Your task to perform on an android device: Search for "razer deathadder" on newegg.com, select the first entry, add it to the cart, then select checkout. Image 0: 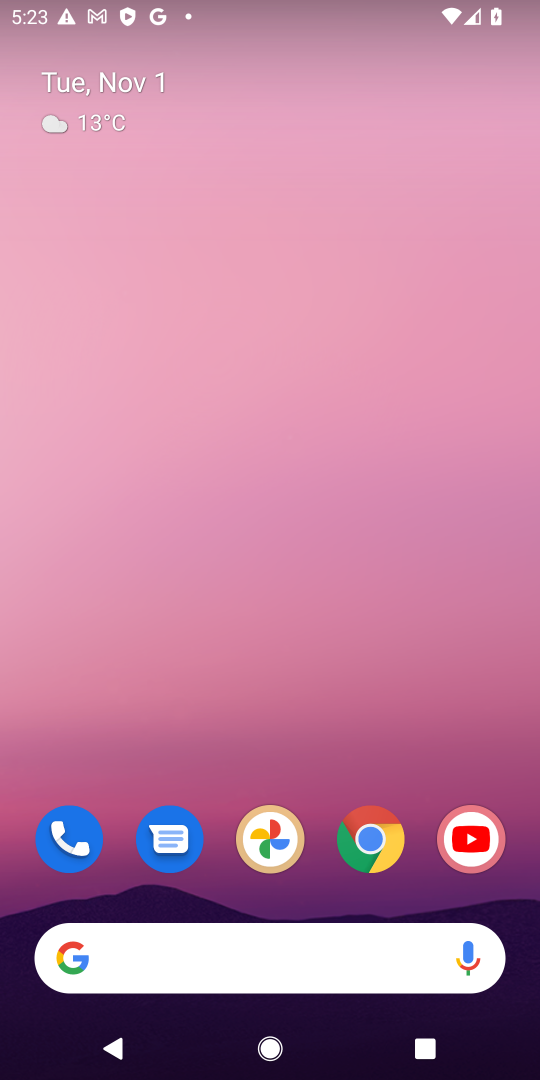
Step 0: drag from (330, 902) to (347, 89)
Your task to perform on an android device: Search for "razer deathadder" on newegg.com, select the first entry, add it to the cart, then select checkout. Image 1: 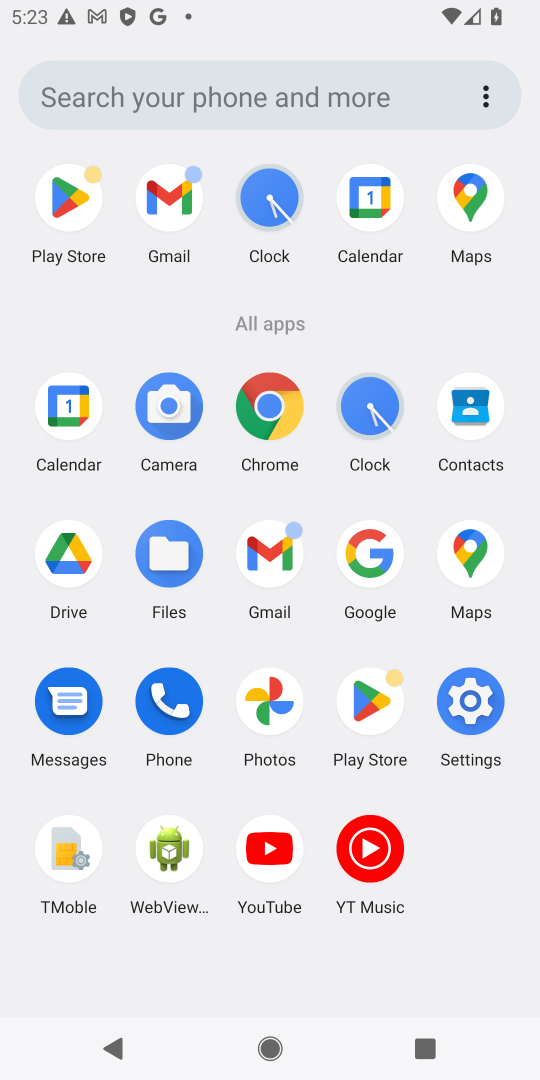
Step 1: click (268, 407)
Your task to perform on an android device: Search for "razer deathadder" on newegg.com, select the first entry, add it to the cart, then select checkout. Image 2: 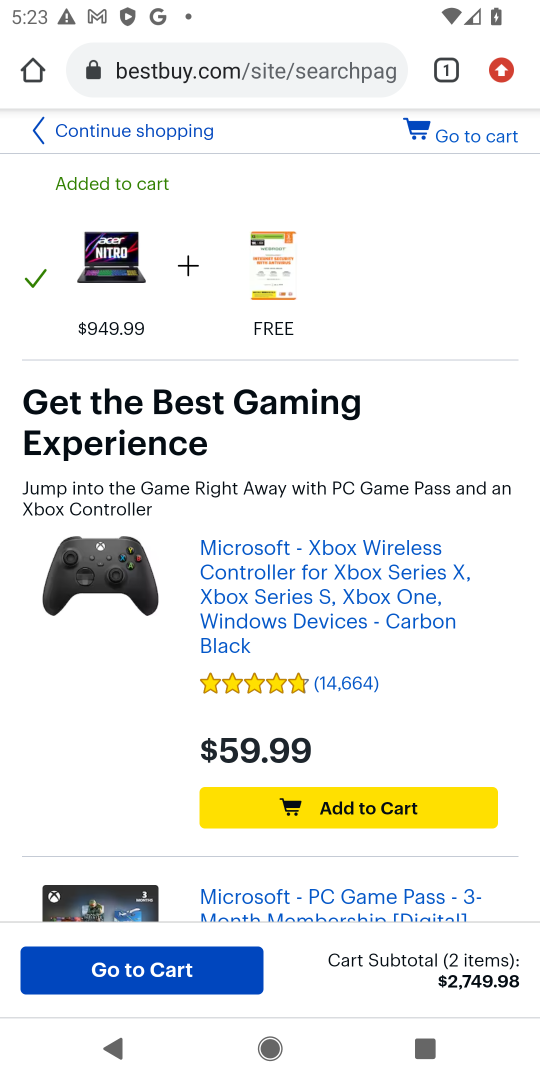
Step 2: click (287, 69)
Your task to perform on an android device: Search for "razer deathadder" on newegg.com, select the first entry, add it to the cart, then select checkout. Image 3: 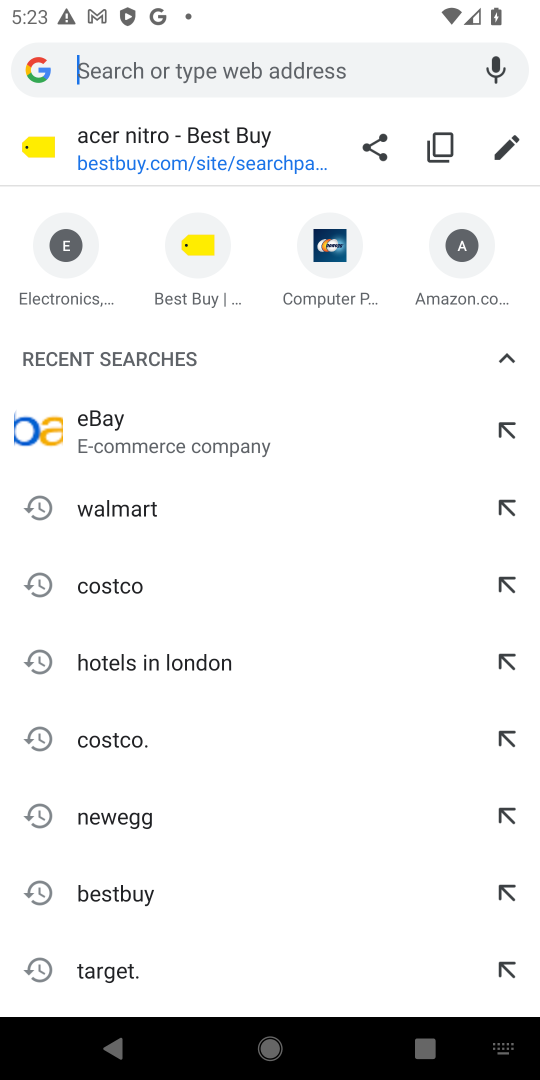
Step 3: type "newegg.com"
Your task to perform on an android device: Search for "razer deathadder" on newegg.com, select the first entry, add it to the cart, then select checkout. Image 4: 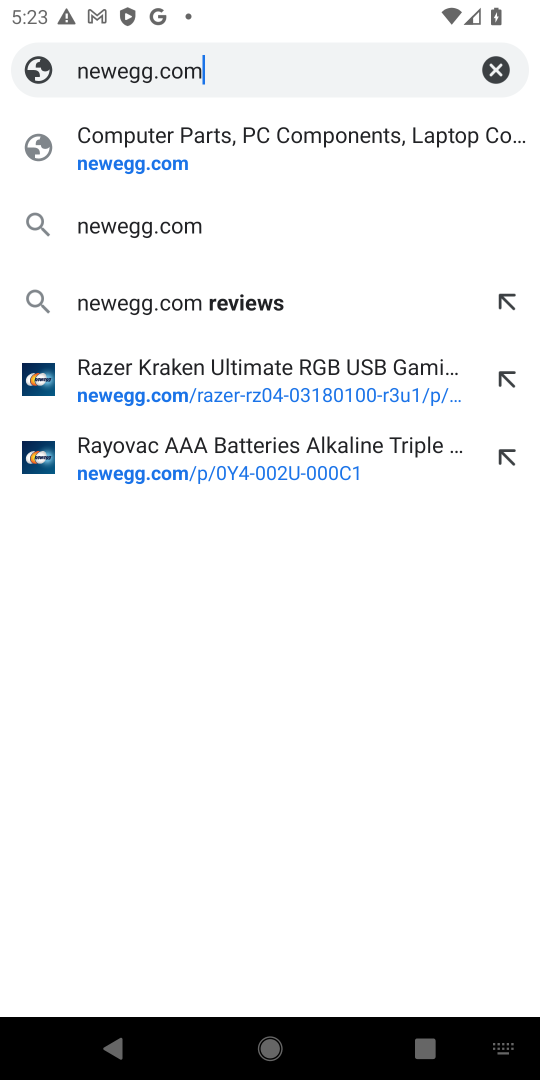
Step 4: press enter
Your task to perform on an android device: Search for "razer deathadder" on newegg.com, select the first entry, add it to the cart, then select checkout. Image 5: 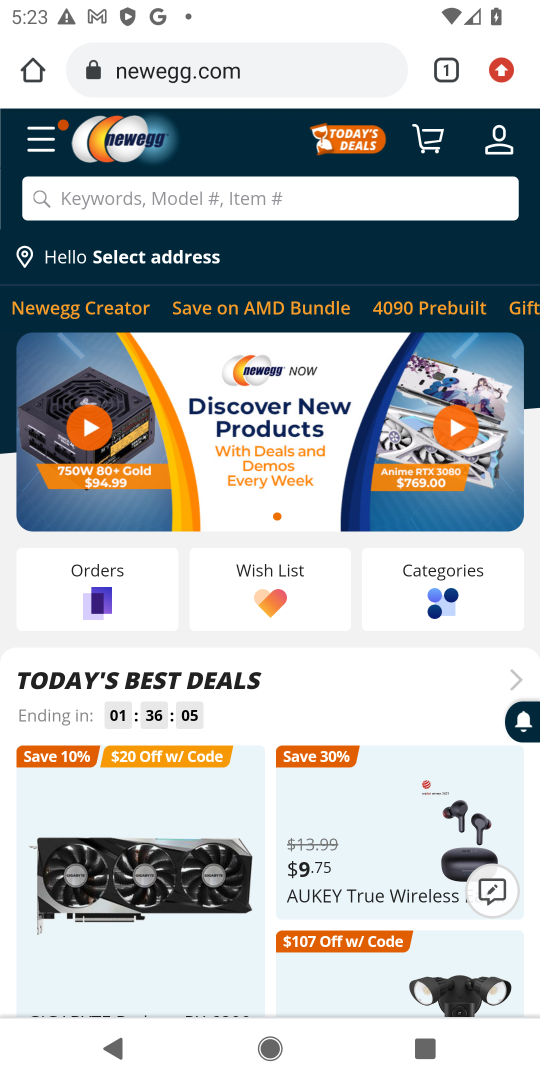
Step 5: click (339, 186)
Your task to perform on an android device: Search for "razer deathadder" on newegg.com, select the first entry, add it to the cart, then select checkout. Image 6: 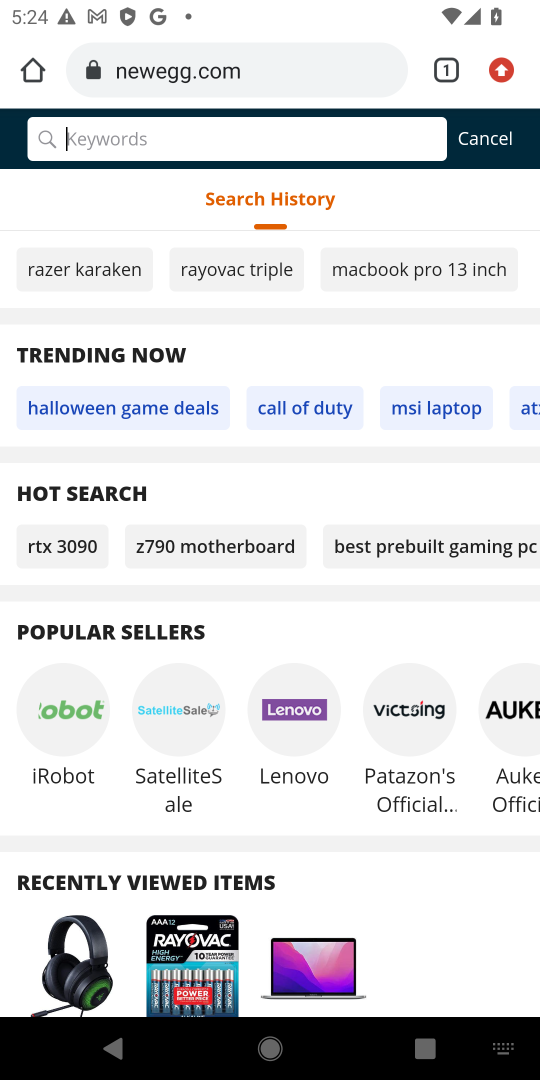
Step 6: type "razer deathadder"
Your task to perform on an android device: Search for "razer deathadder" on newegg.com, select the first entry, add it to the cart, then select checkout. Image 7: 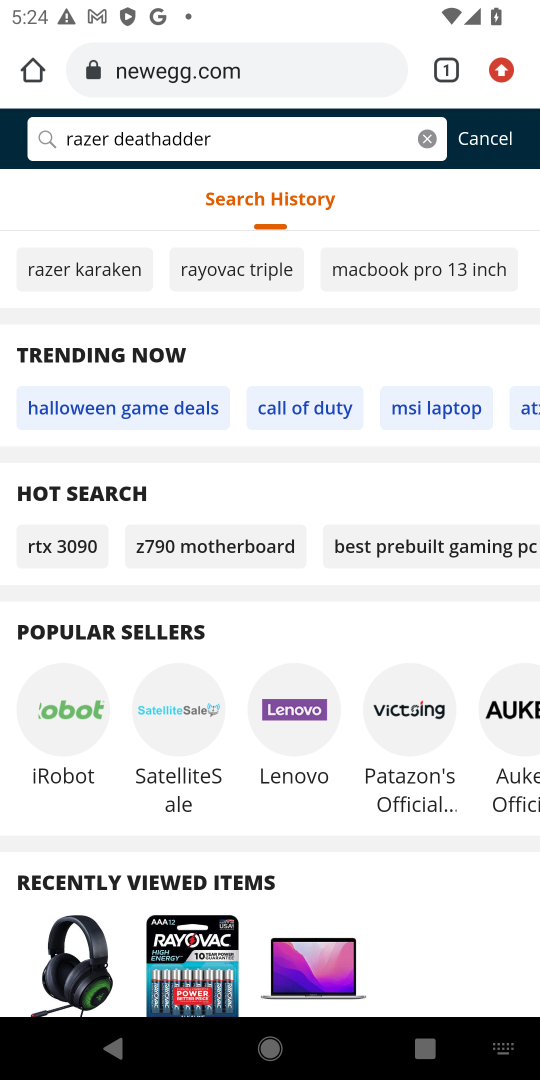
Step 7: press enter
Your task to perform on an android device: Search for "razer deathadder" on newegg.com, select the first entry, add it to the cart, then select checkout. Image 8: 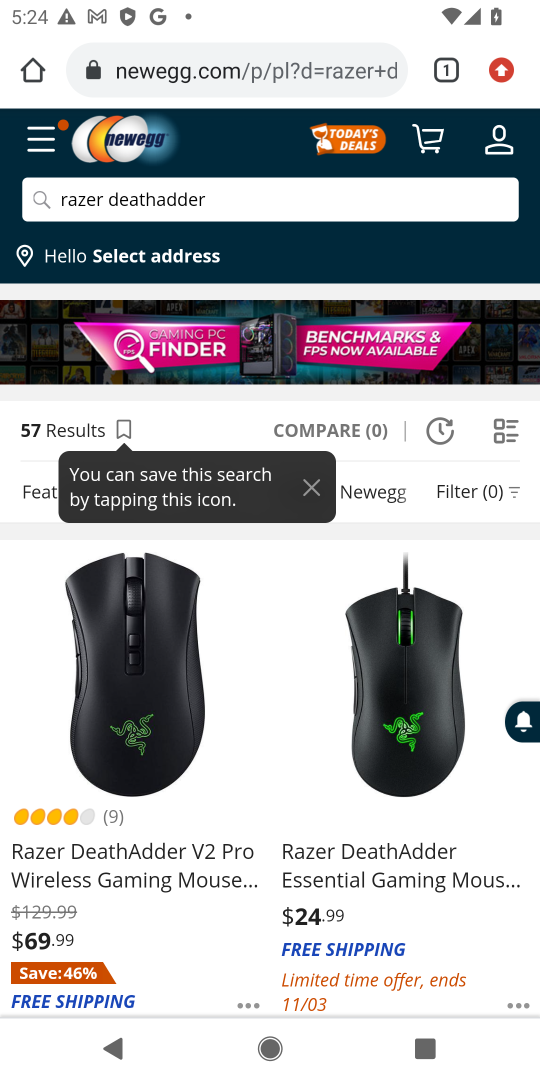
Step 8: click (140, 683)
Your task to perform on an android device: Search for "razer deathadder" on newegg.com, select the first entry, add it to the cart, then select checkout. Image 9: 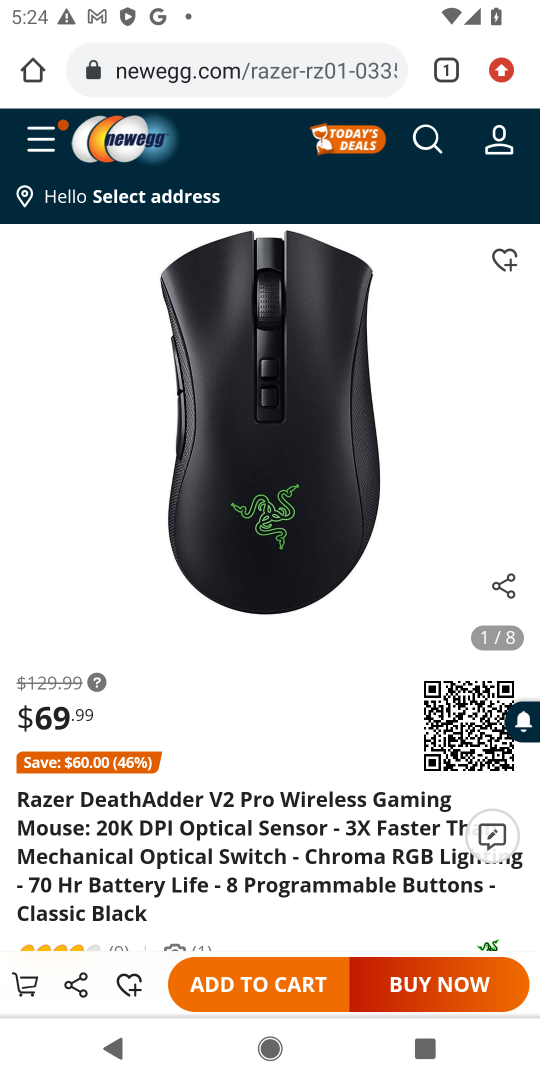
Step 9: click (266, 986)
Your task to perform on an android device: Search for "razer deathadder" on newegg.com, select the first entry, add it to the cart, then select checkout. Image 10: 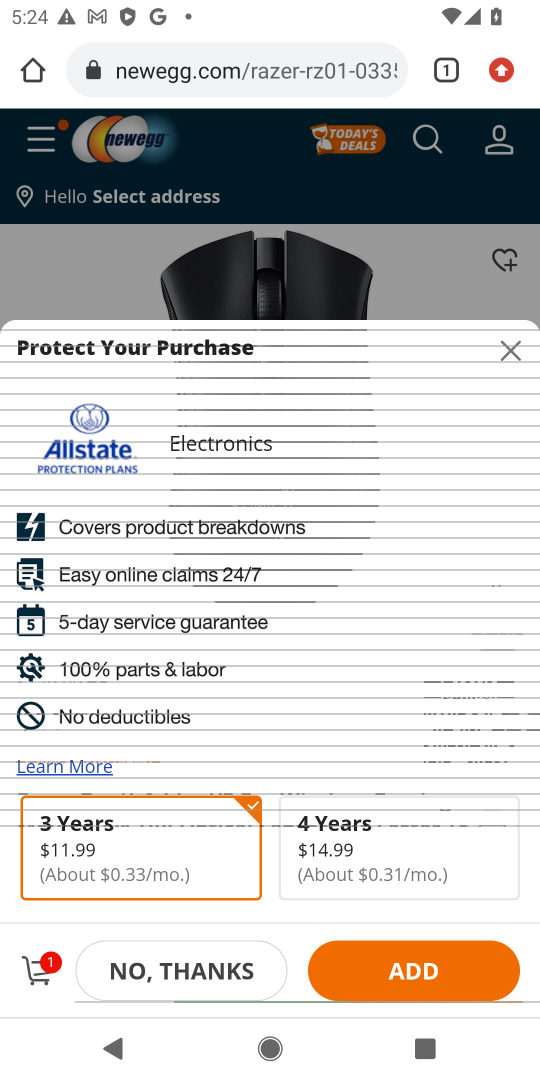
Step 10: click (30, 996)
Your task to perform on an android device: Search for "razer deathadder" on newegg.com, select the first entry, add it to the cart, then select checkout. Image 11: 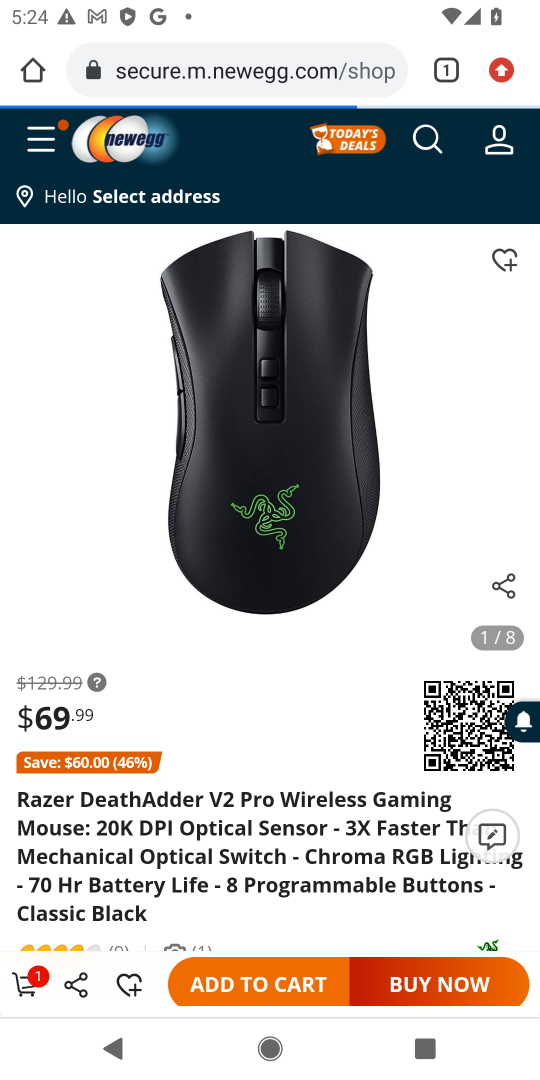
Step 11: click (43, 976)
Your task to perform on an android device: Search for "razer deathadder" on newegg.com, select the first entry, add it to the cart, then select checkout. Image 12: 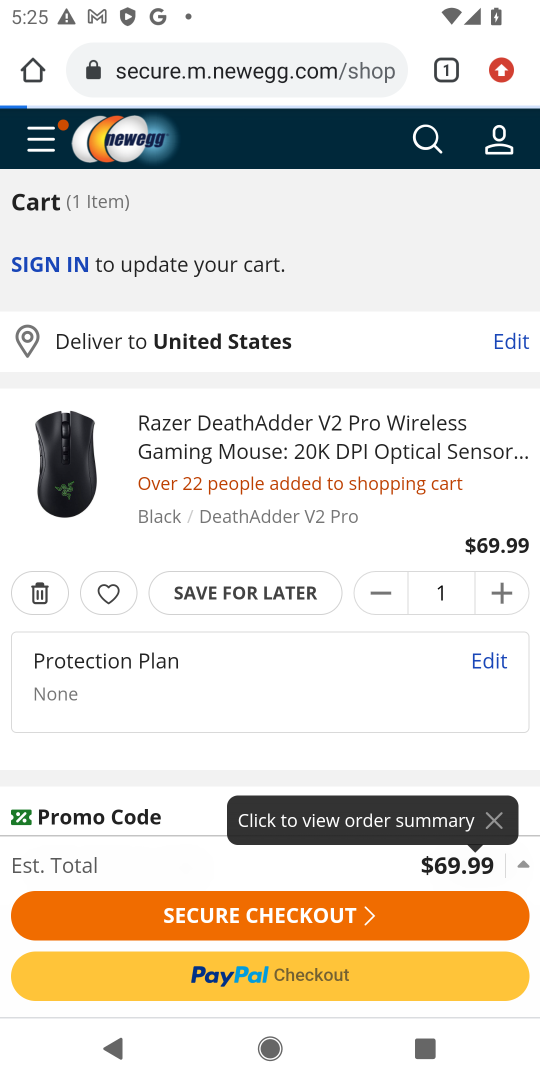
Step 12: click (328, 922)
Your task to perform on an android device: Search for "razer deathadder" on newegg.com, select the first entry, add it to the cart, then select checkout. Image 13: 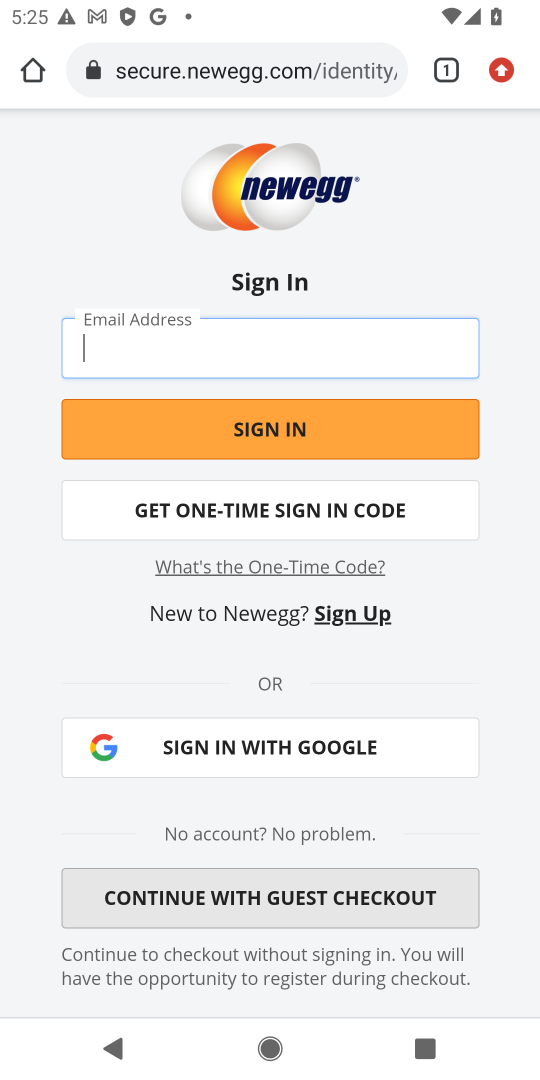
Step 13: task complete